Your task to perform on an android device: open sync settings in chrome Image 0: 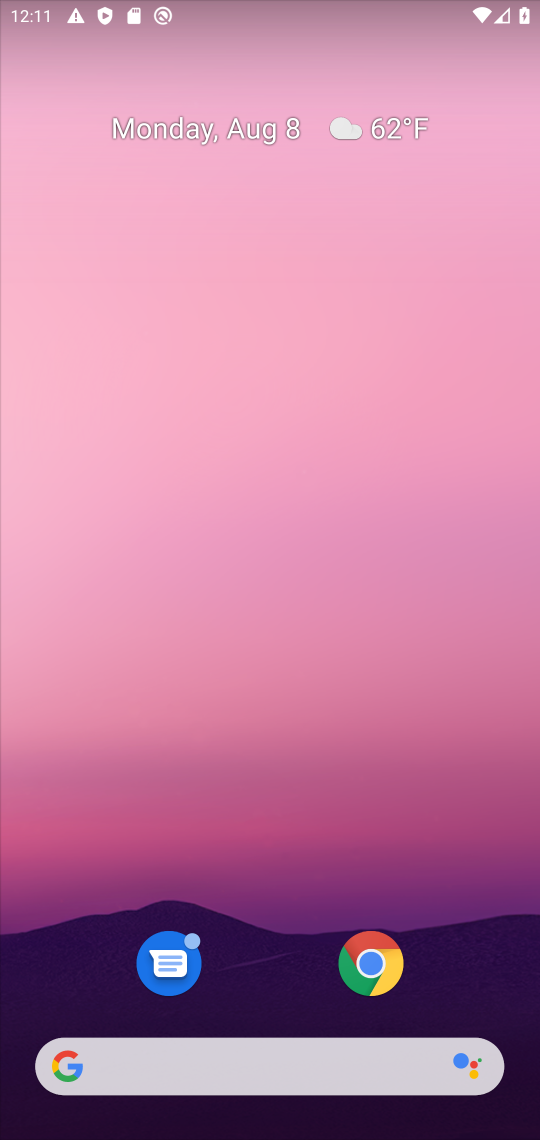
Step 0: drag from (493, 879) to (241, 58)
Your task to perform on an android device: open sync settings in chrome Image 1: 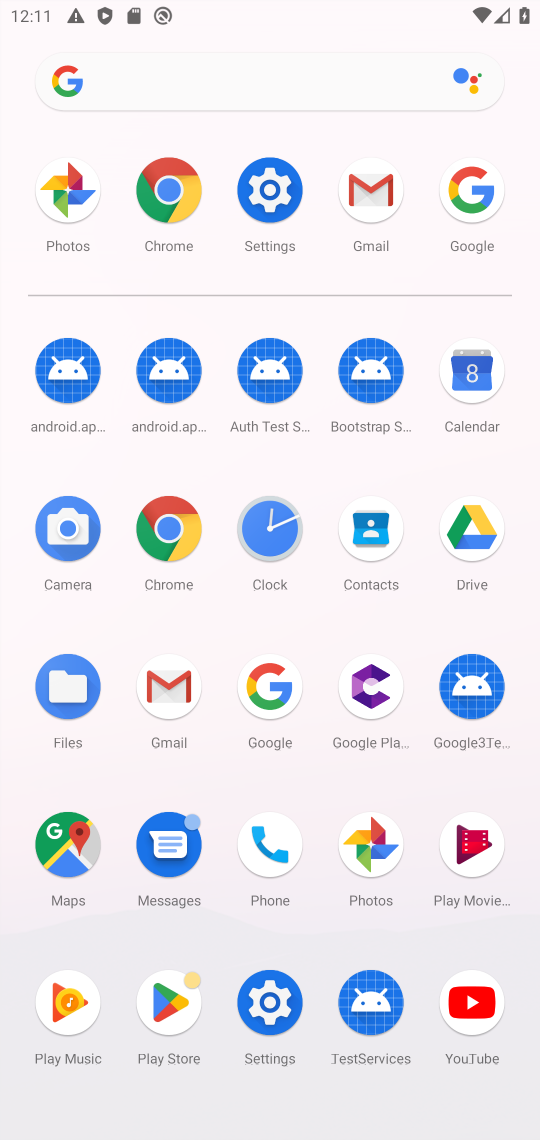
Step 1: click (177, 536)
Your task to perform on an android device: open sync settings in chrome Image 2: 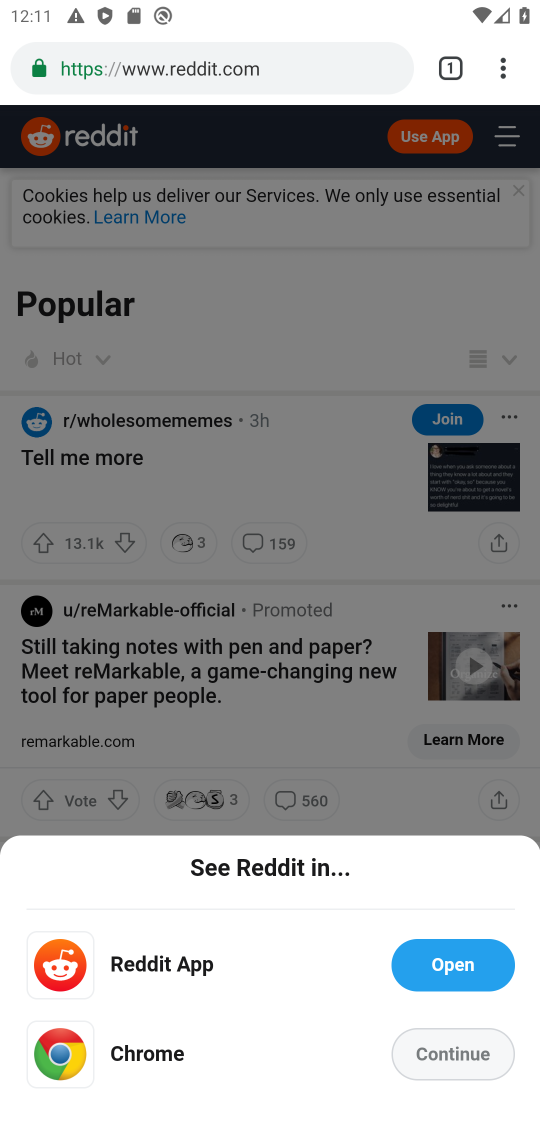
Step 2: click (504, 61)
Your task to perform on an android device: open sync settings in chrome Image 3: 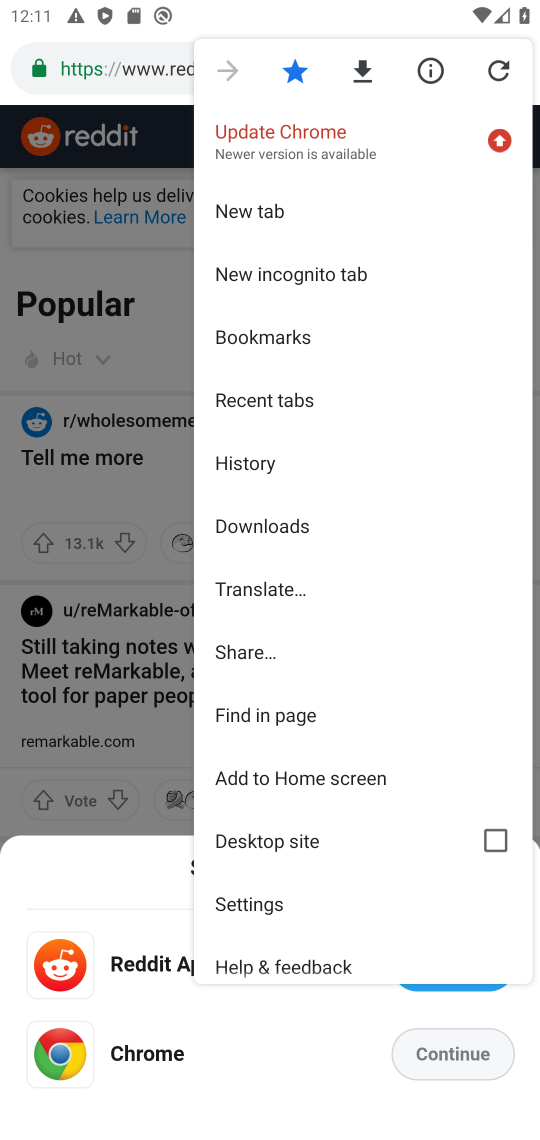
Step 3: click (298, 905)
Your task to perform on an android device: open sync settings in chrome Image 4: 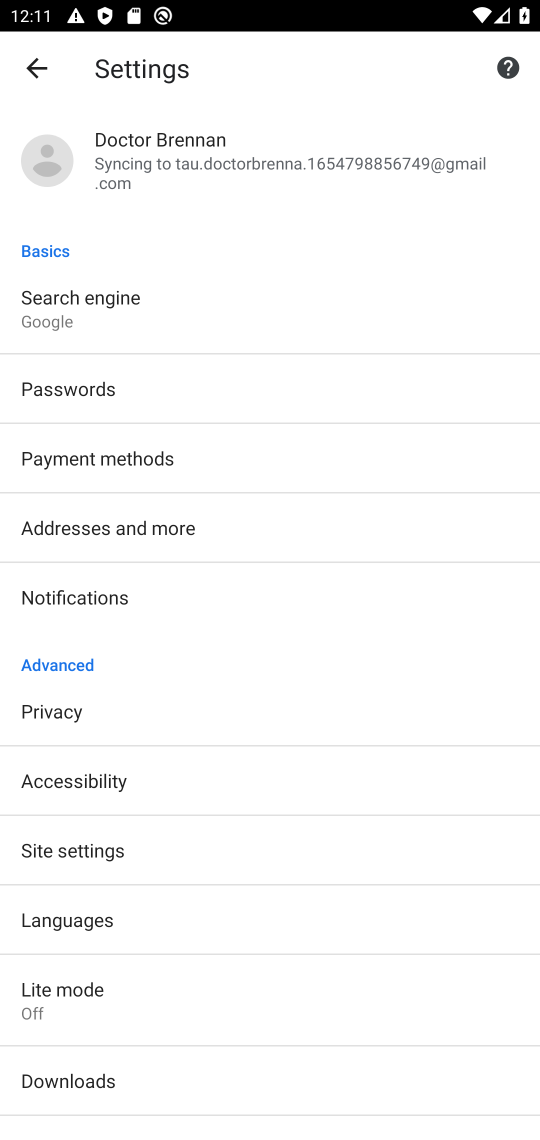
Step 4: click (95, 879)
Your task to perform on an android device: open sync settings in chrome Image 5: 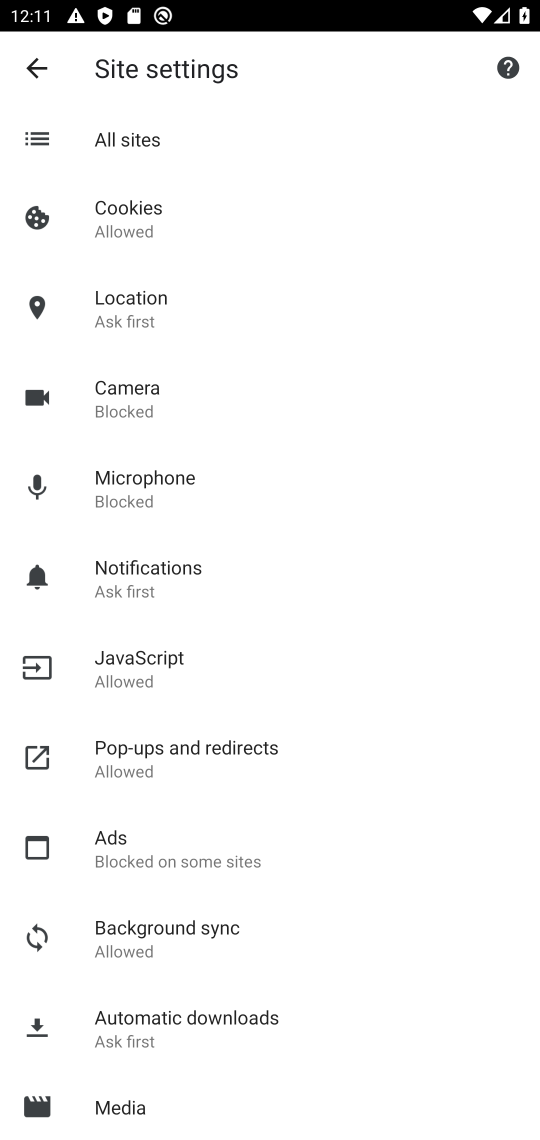
Step 5: drag from (240, 1018) to (264, 785)
Your task to perform on an android device: open sync settings in chrome Image 6: 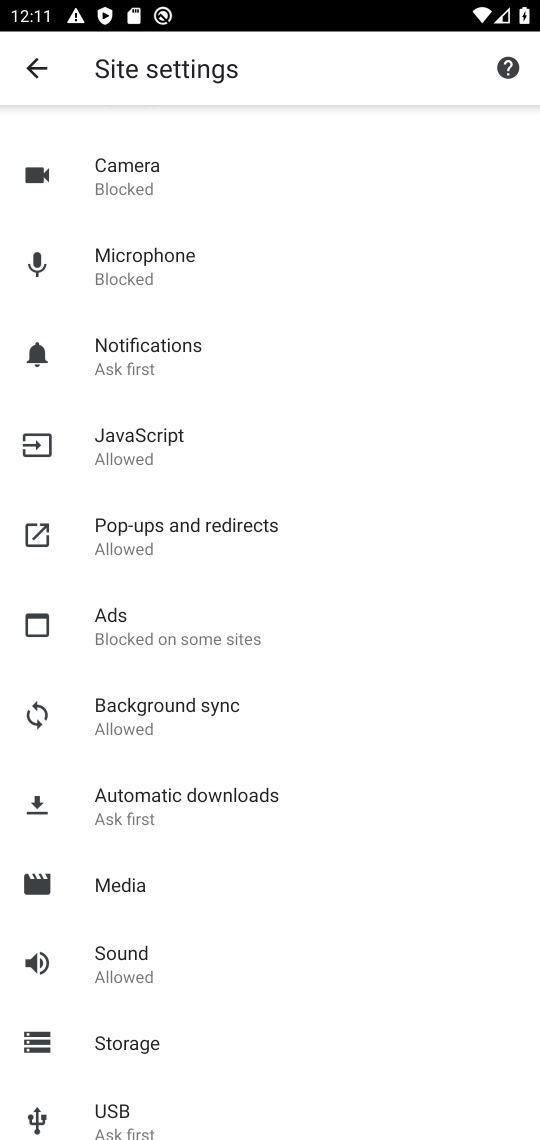
Step 6: click (158, 732)
Your task to perform on an android device: open sync settings in chrome Image 7: 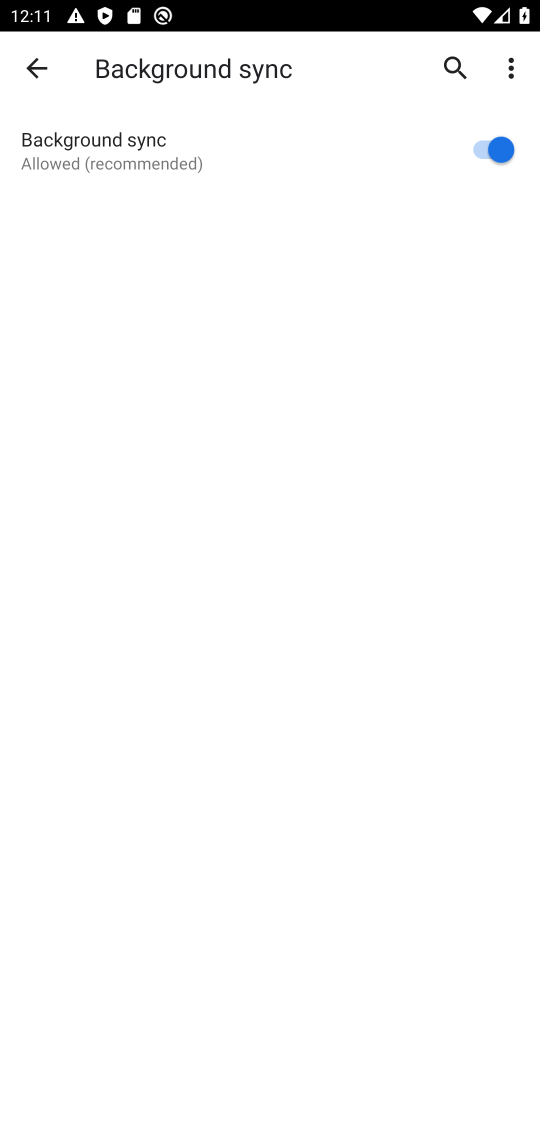
Step 7: task complete